Your task to perform on an android device: search for starred emails in the gmail app Image 0: 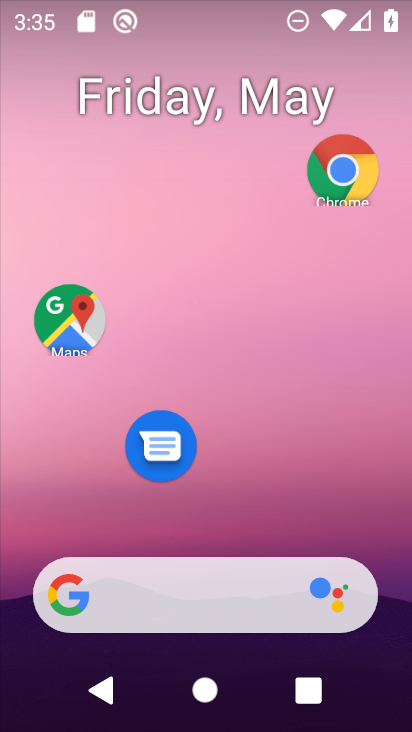
Step 0: drag from (263, 483) to (240, 112)
Your task to perform on an android device: search for starred emails in the gmail app Image 1: 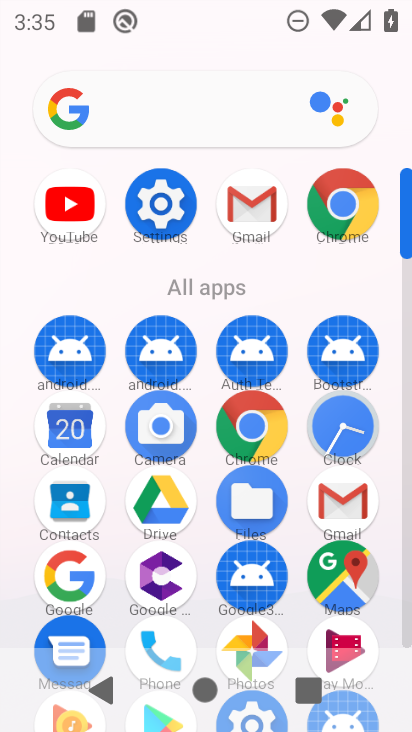
Step 1: click (256, 223)
Your task to perform on an android device: search for starred emails in the gmail app Image 2: 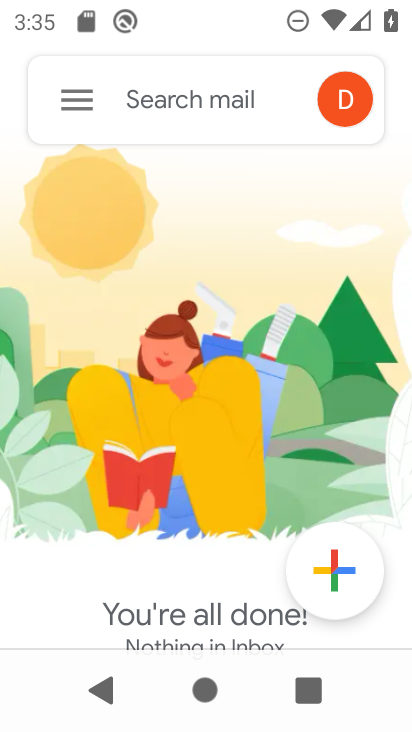
Step 2: click (80, 106)
Your task to perform on an android device: search for starred emails in the gmail app Image 3: 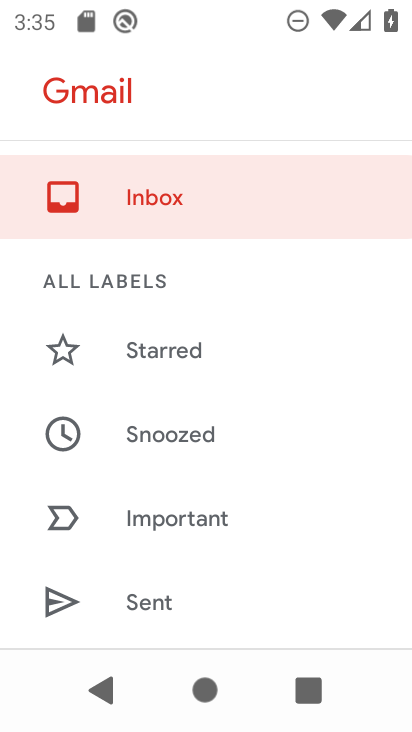
Step 3: drag from (249, 571) to (251, 190)
Your task to perform on an android device: search for starred emails in the gmail app Image 4: 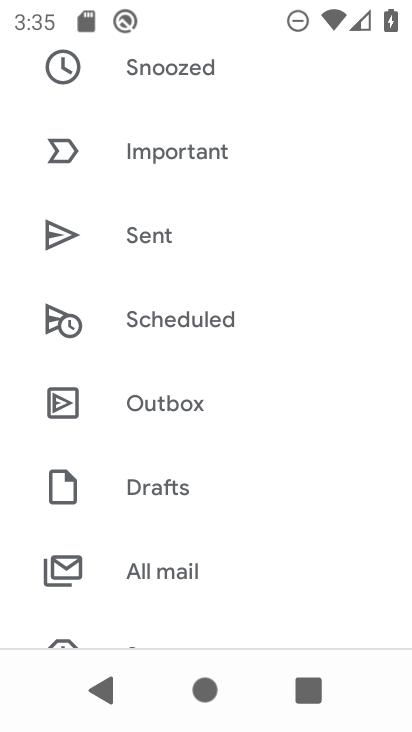
Step 4: drag from (259, 576) to (265, 170)
Your task to perform on an android device: search for starred emails in the gmail app Image 5: 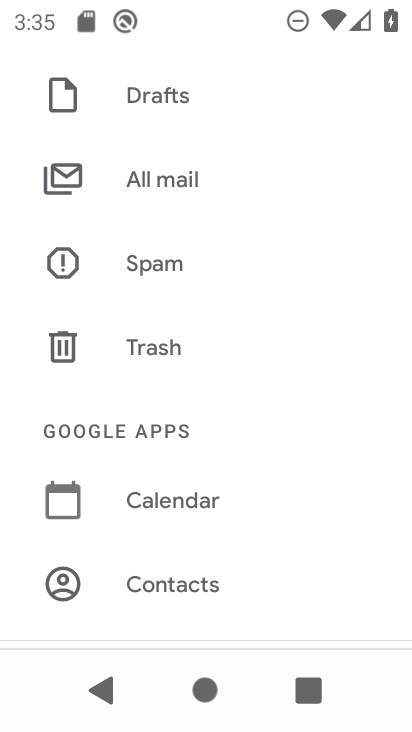
Step 5: drag from (221, 150) to (219, 448)
Your task to perform on an android device: search for starred emails in the gmail app Image 6: 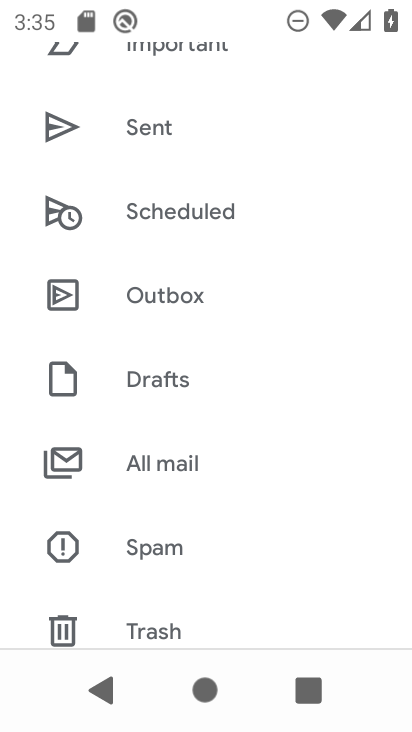
Step 6: drag from (227, 282) to (228, 511)
Your task to perform on an android device: search for starred emails in the gmail app Image 7: 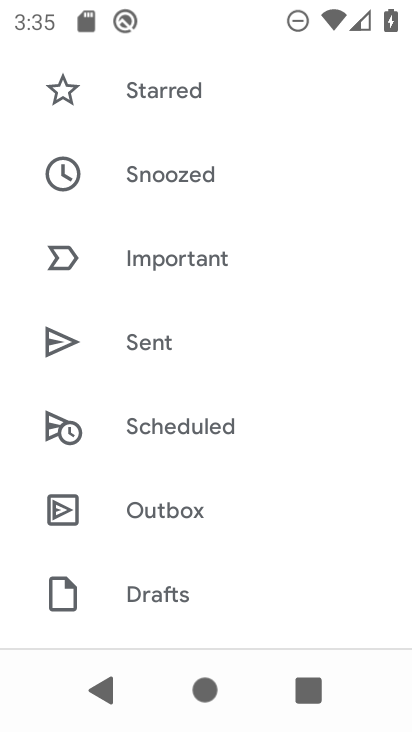
Step 7: click (159, 86)
Your task to perform on an android device: search for starred emails in the gmail app Image 8: 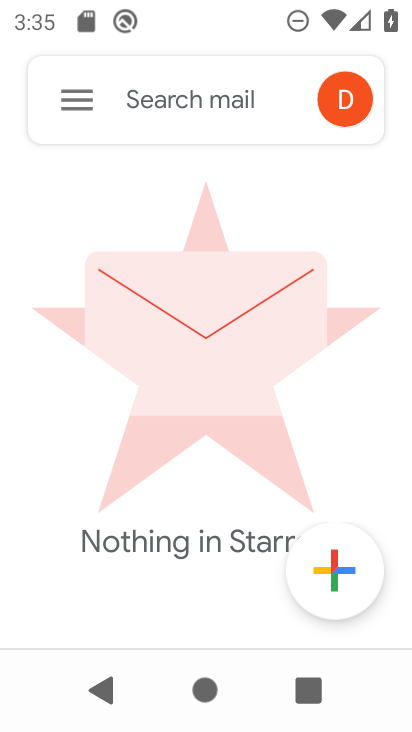
Step 8: task complete